Your task to perform on an android device: toggle improve location accuracy Image 0: 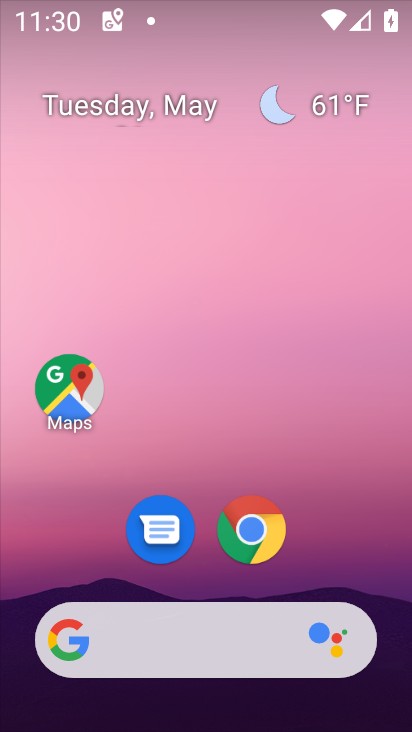
Step 0: drag from (360, 541) to (113, 171)
Your task to perform on an android device: toggle improve location accuracy Image 1: 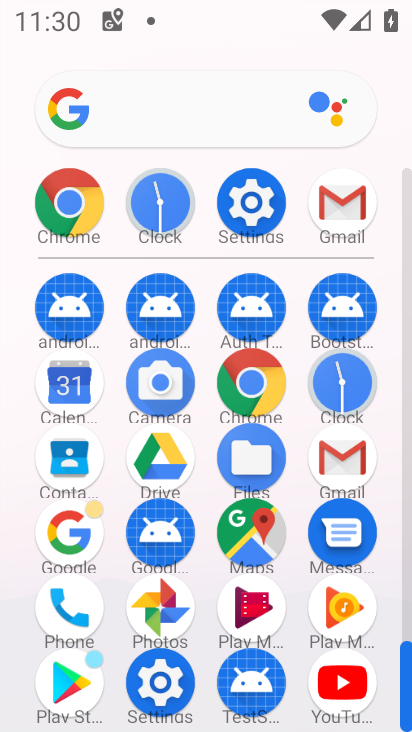
Step 1: click (270, 212)
Your task to perform on an android device: toggle improve location accuracy Image 2: 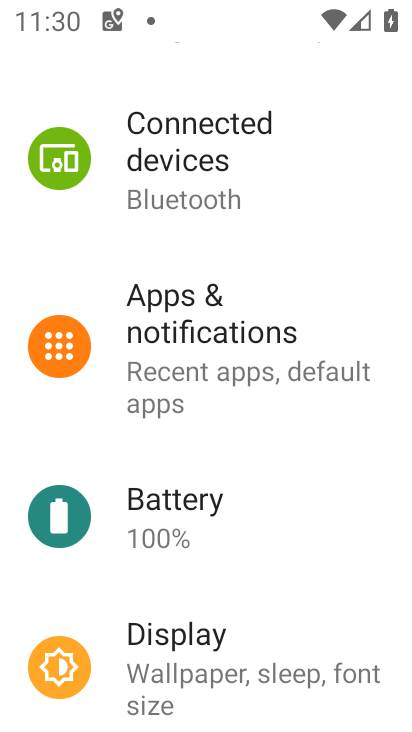
Step 2: drag from (183, 570) to (157, 87)
Your task to perform on an android device: toggle improve location accuracy Image 3: 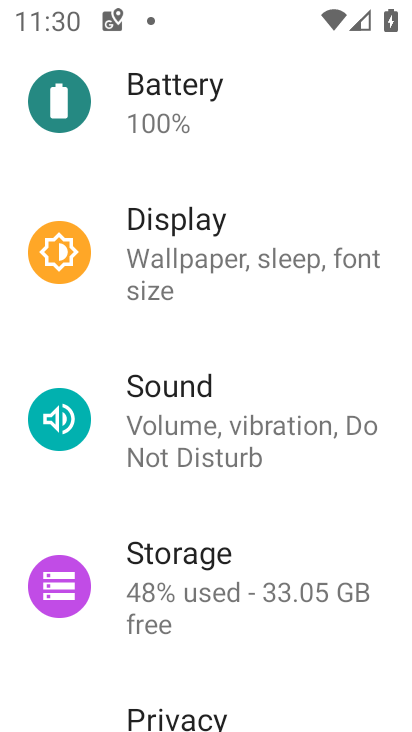
Step 3: drag from (212, 543) to (180, 64)
Your task to perform on an android device: toggle improve location accuracy Image 4: 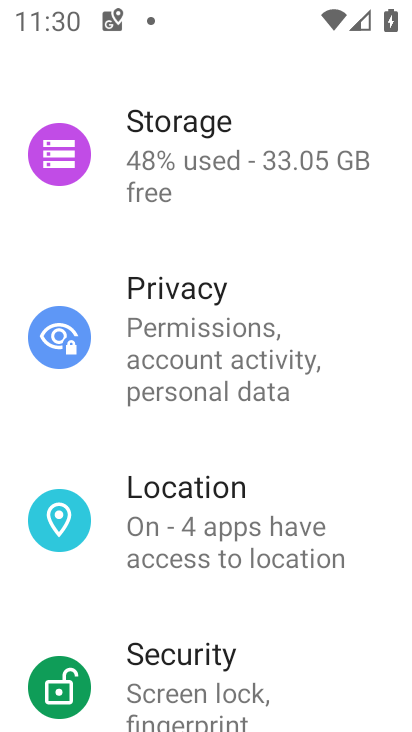
Step 4: click (176, 510)
Your task to perform on an android device: toggle improve location accuracy Image 5: 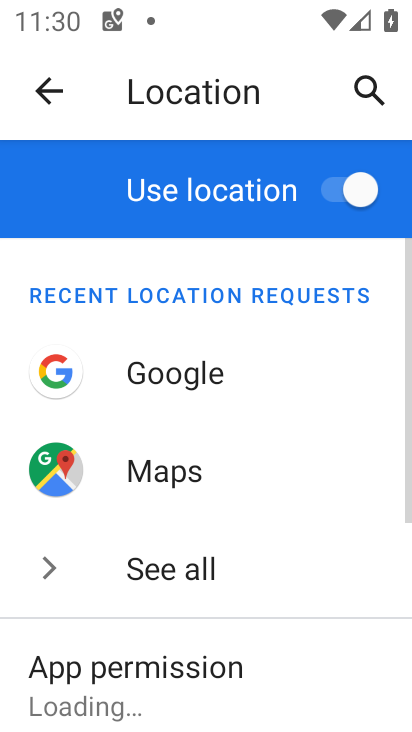
Step 5: drag from (216, 646) to (208, 42)
Your task to perform on an android device: toggle improve location accuracy Image 6: 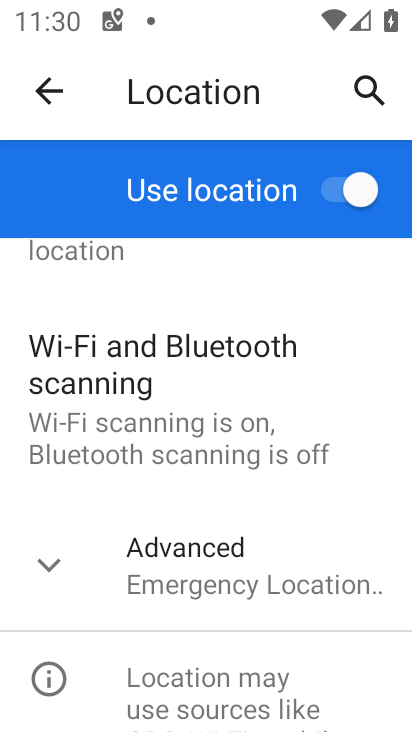
Step 6: click (153, 569)
Your task to perform on an android device: toggle improve location accuracy Image 7: 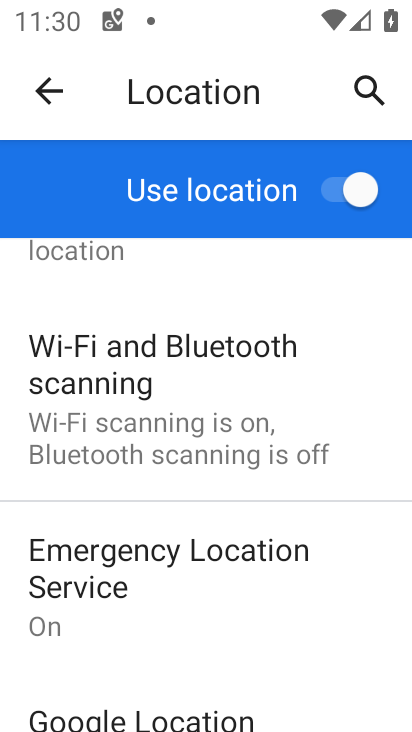
Step 7: drag from (153, 573) to (133, 249)
Your task to perform on an android device: toggle improve location accuracy Image 8: 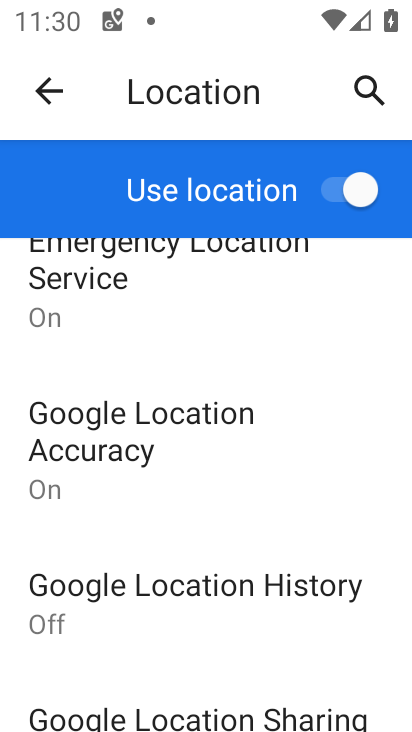
Step 8: click (157, 428)
Your task to perform on an android device: toggle improve location accuracy Image 9: 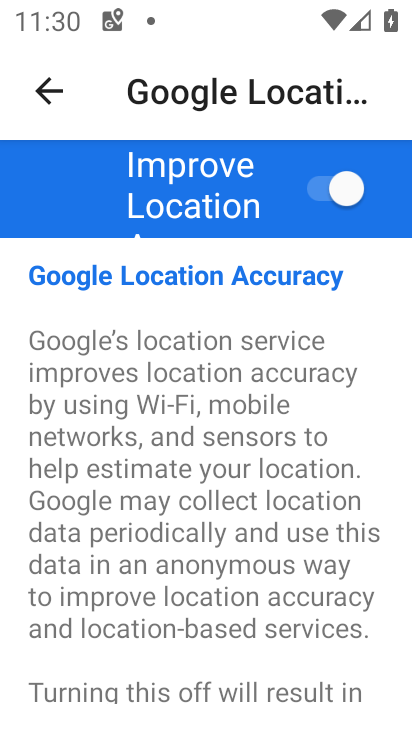
Step 9: click (340, 189)
Your task to perform on an android device: toggle improve location accuracy Image 10: 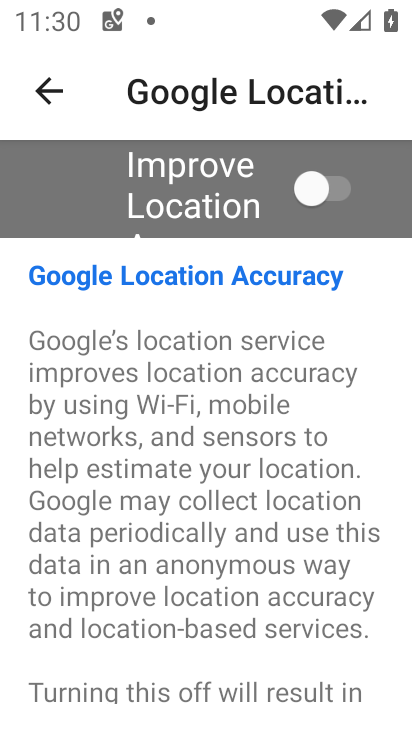
Step 10: task complete